Your task to perform on an android device: Go to Yahoo.com Image 0: 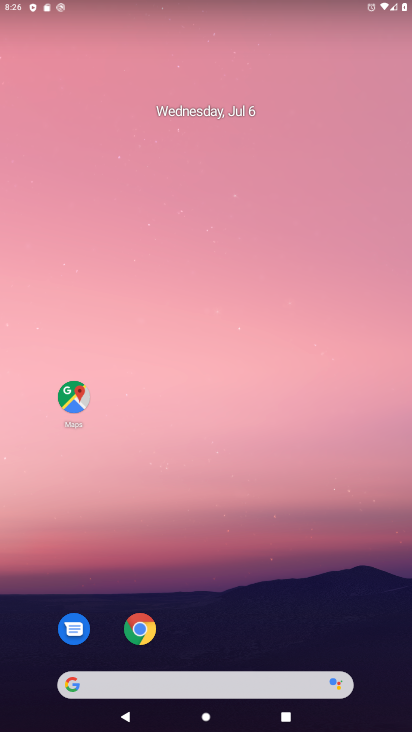
Step 0: click (132, 631)
Your task to perform on an android device: Go to Yahoo.com Image 1: 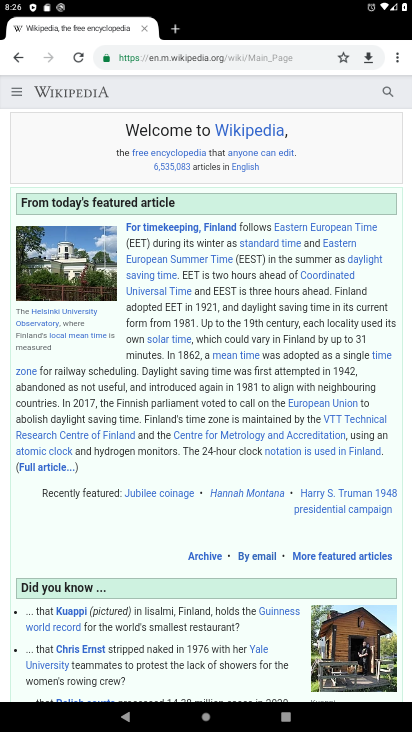
Step 1: press back button
Your task to perform on an android device: Go to Yahoo.com Image 2: 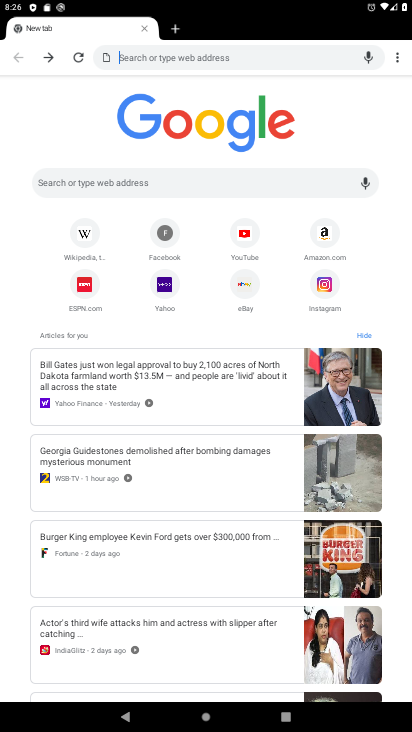
Step 2: click (164, 283)
Your task to perform on an android device: Go to Yahoo.com Image 3: 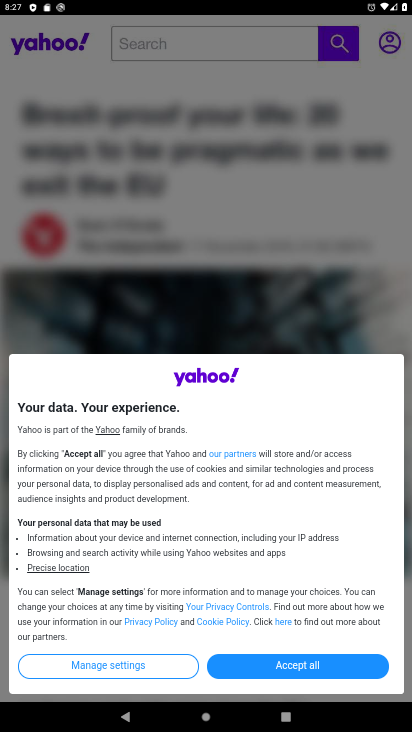
Step 3: click (283, 670)
Your task to perform on an android device: Go to Yahoo.com Image 4: 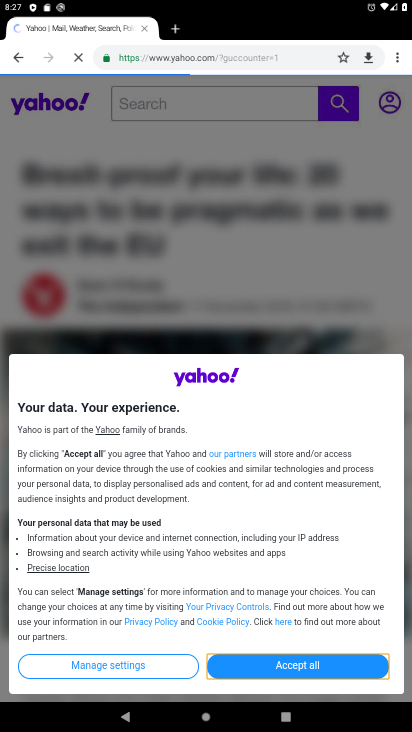
Step 4: click (283, 670)
Your task to perform on an android device: Go to Yahoo.com Image 5: 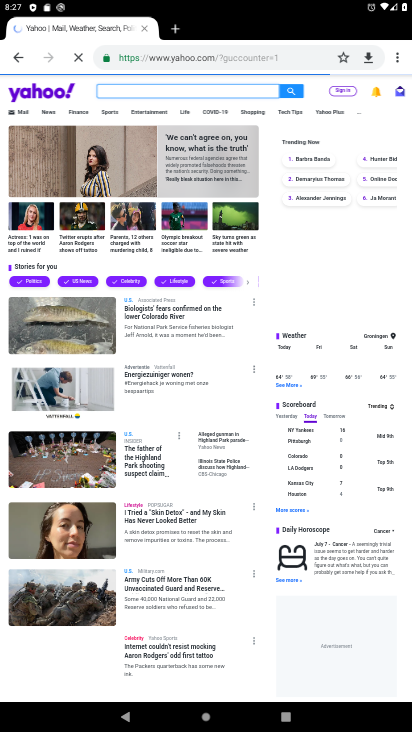
Step 5: task complete